Your task to perform on an android device: turn off sleep mode Image 0: 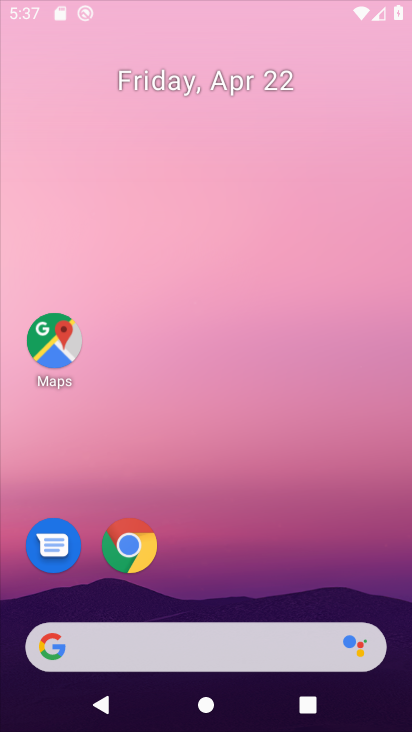
Step 0: drag from (249, 513) to (166, 92)
Your task to perform on an android device: turn off sleep mode Image 1: 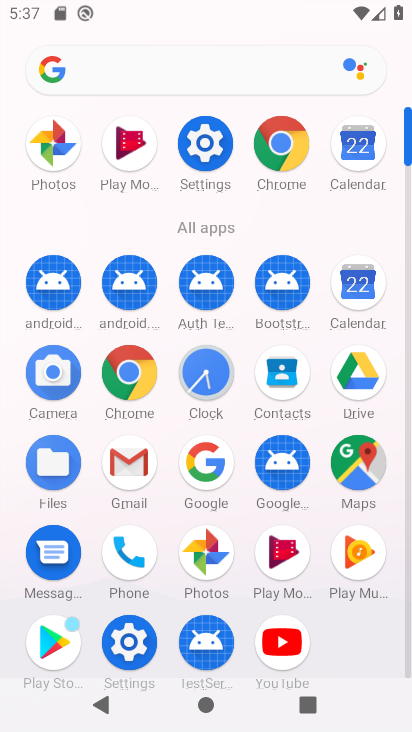
Step 1: drag from (221, 520) to (248, 249)
Your task to perform on an android device: turn off sleep mode Image 2: 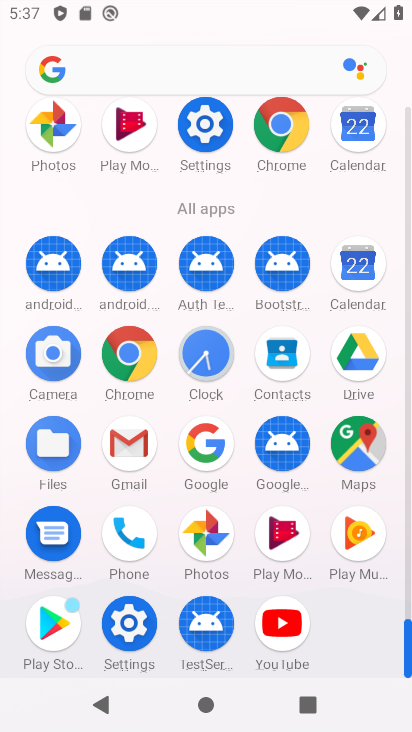
Step 2: click (199, 141)
Your task to perform on an android device: turn off sleep mode Image 3: 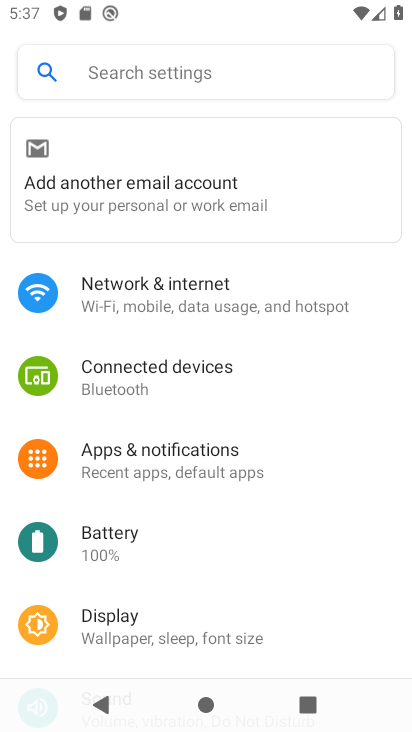
Step 3: task complete